Your task to perform on an android device: Toggle the flashlight Image 0: 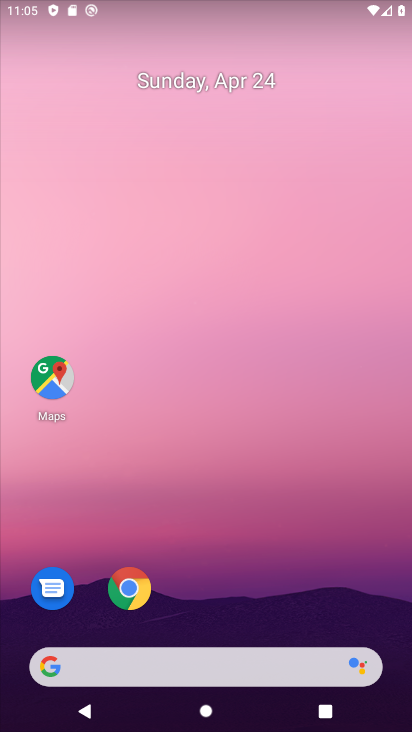
Step 0: drag from (298, 541) to (294, 113)
Your task to perform on an android device: Toggle the flashlight Image 1: 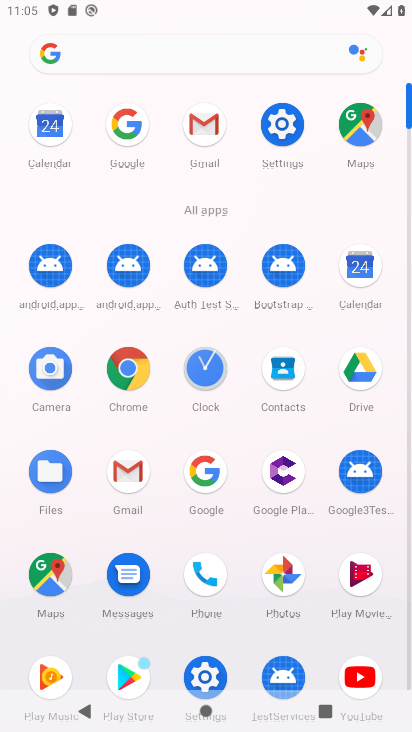
Step 1: click (284, 124)
Your task to perform on an android device: Toggle the flashlight Image 2: 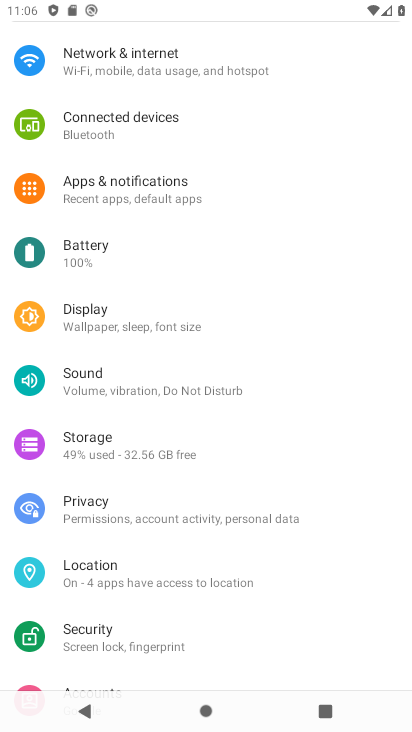
Step 2: drag from (290, 588) to (288, 287)
Your task to perform on an android device: Toggle the flashlight Image 3: 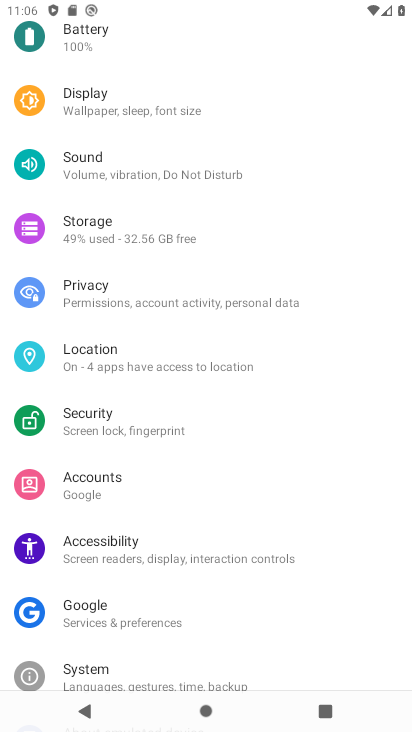
Step 3: drag from (347, 228) to (354, 529)
Your task to perform on an android device: Toggle the flashlight Image 4: 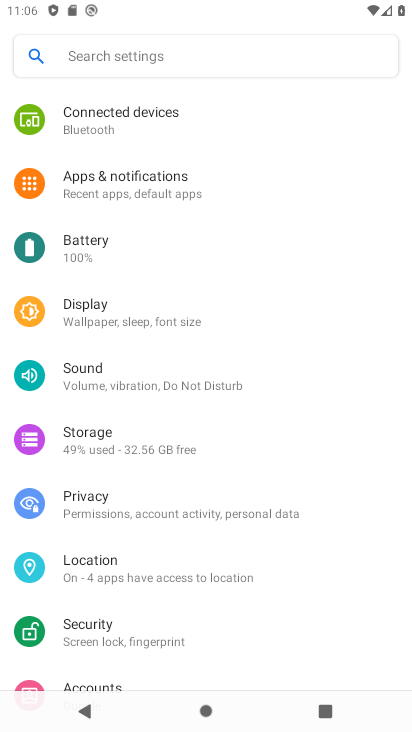
Step 4: click (182, 184)
Your task to perform on an android device: Toggle the flashlight Image 5: 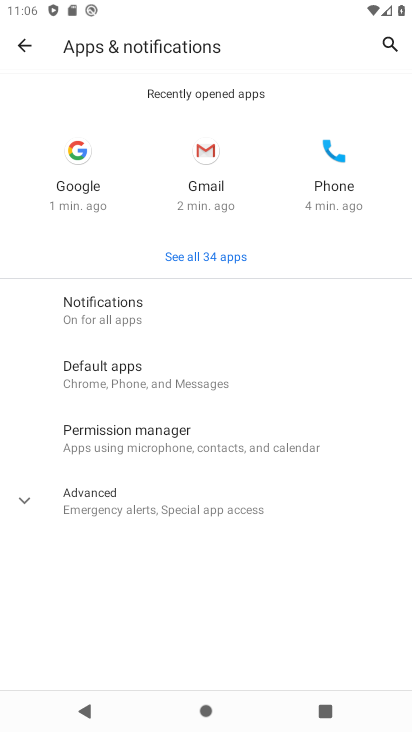
Step 5: click (194, 505)
Your task to perform on an android device: Toggle the flashlight Image 6: 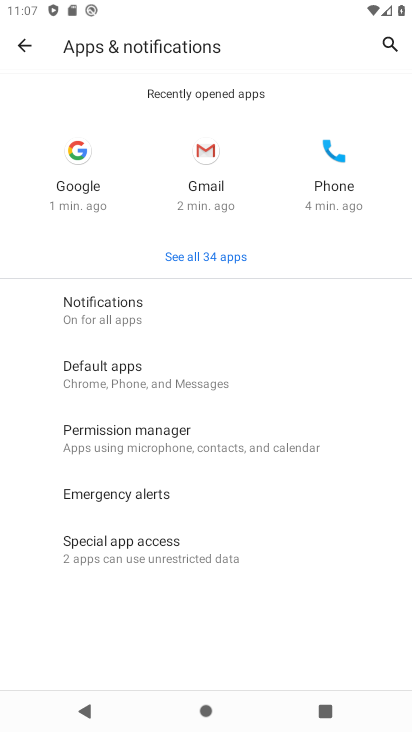
Step 6: task complete